Your task to perform on an android device: turn on the 12-hour format for clock Image 0: 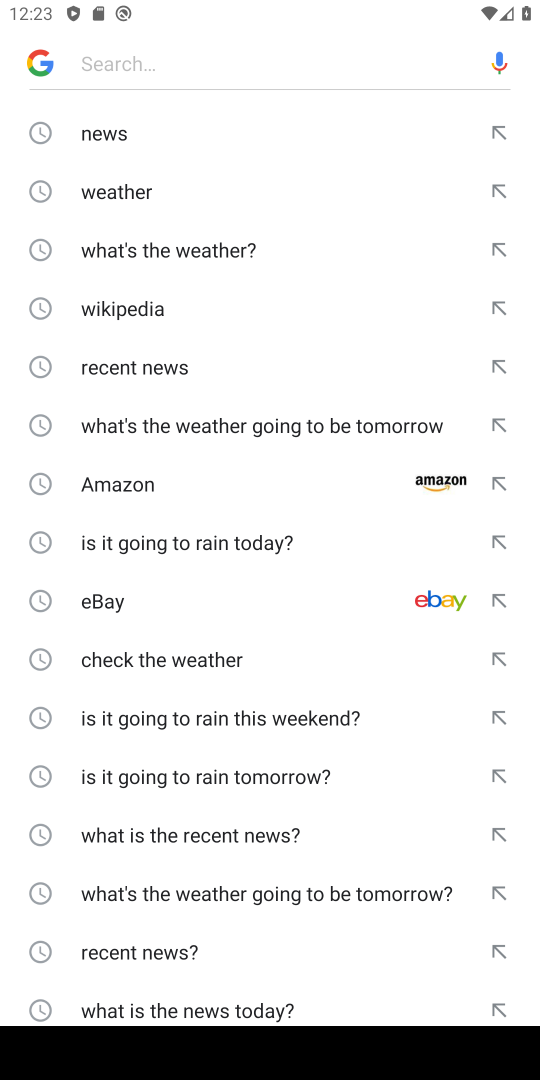
Step 0: press home button
Your task to perform on an android device: turn on the 12-hour format for clock Image 1: 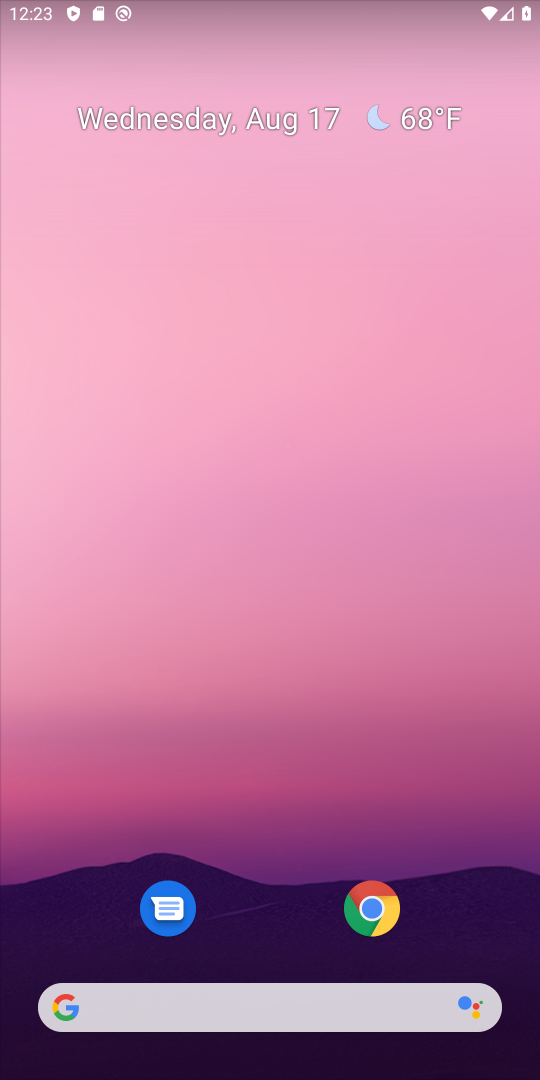
Step 1: drag from (281, 897) to (277, 375)
Your task to perform on an android device: turn on the 12-hour format for clock Image 2: 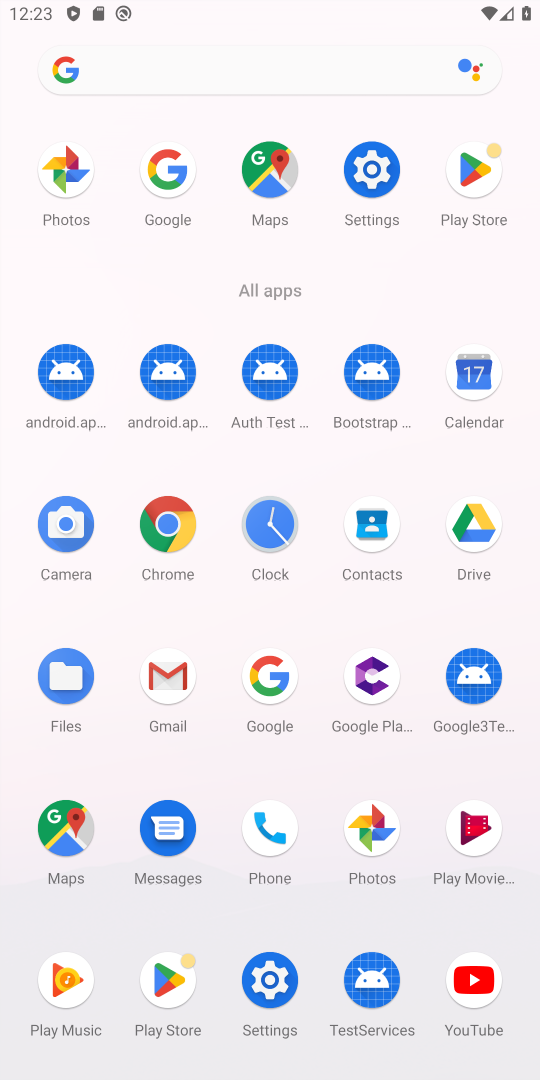
Step 2: click (286, 535)
Your task to perform on an android device: turn on the 12-hour format for clock Image 3: 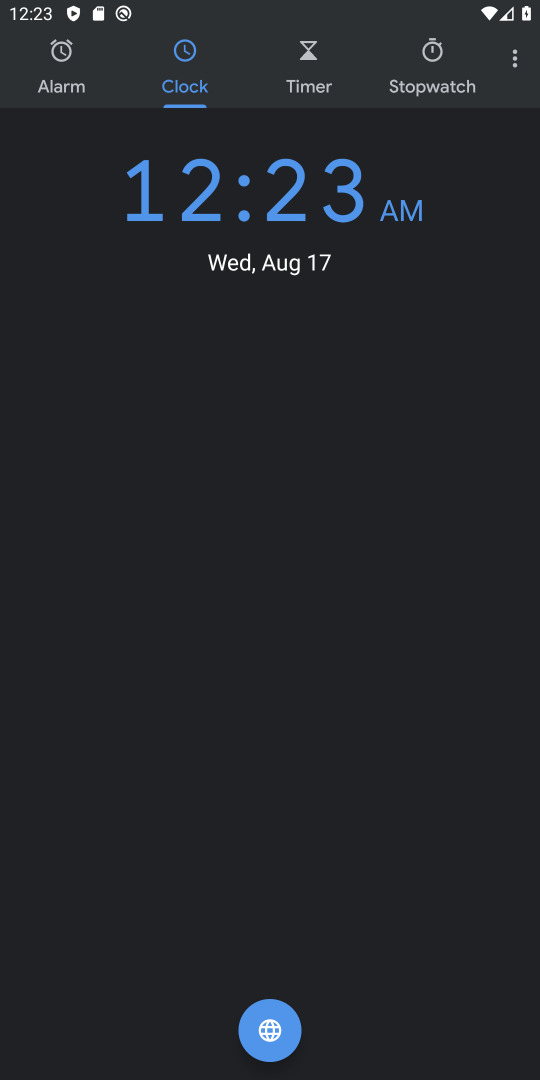
Step 3: click (508, 60)
Your task to perform on an android device: turn on the 12-hour format for clock Image 4: 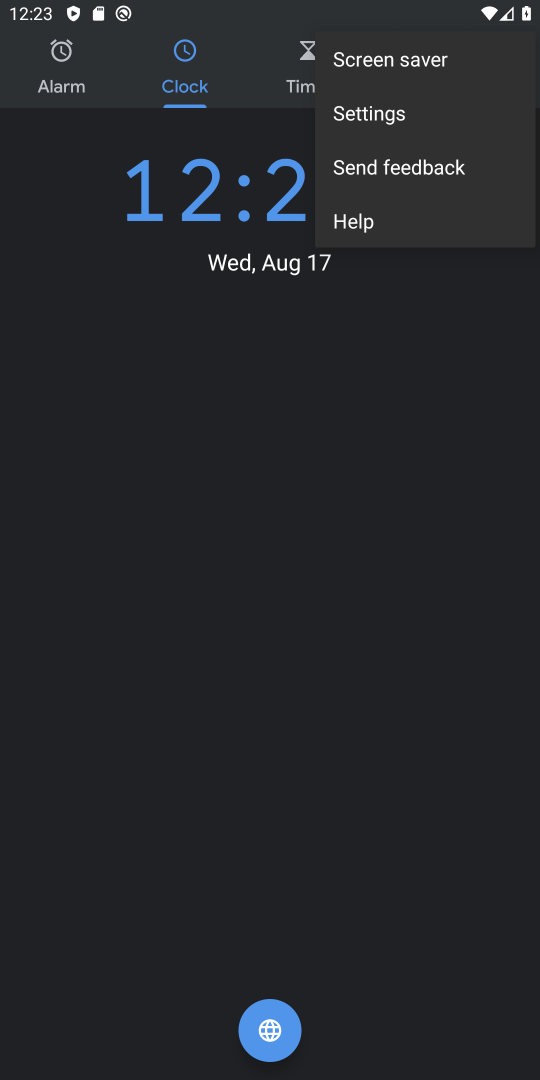
Step 4: click (362, 119)
Your task to perform on an android device: turn on the 12-hour format for clock Image 5: 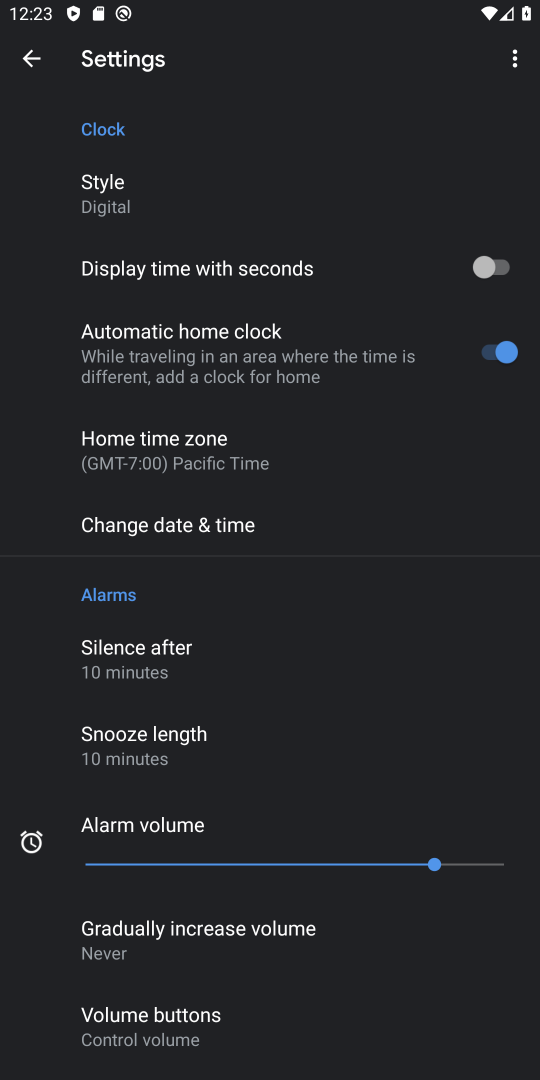
Step 5: click (210, 526)
Your task to perform on an android device: turn on the 12-hour format for clock Image 6: 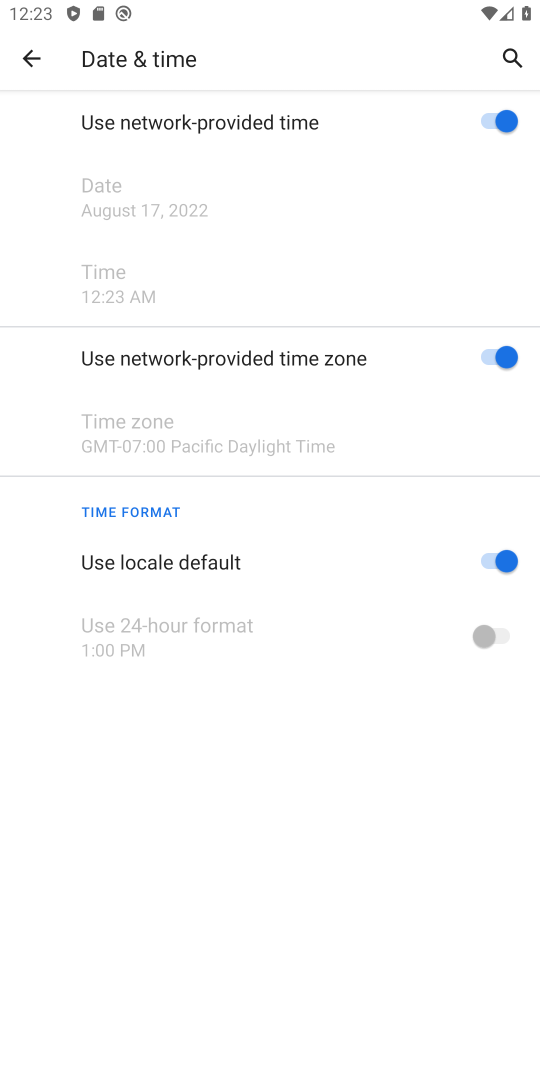
Step 6: task complete